Your task to perform on an android device: Search for Italian restaurants on Maps Image 0: 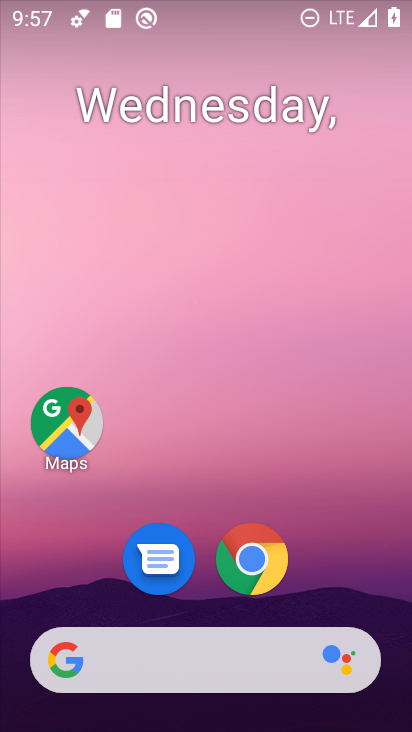
Step 0: click (63, 429)
Your task to perform on an android device: Search for Italian restaurants on Maps Image 1: 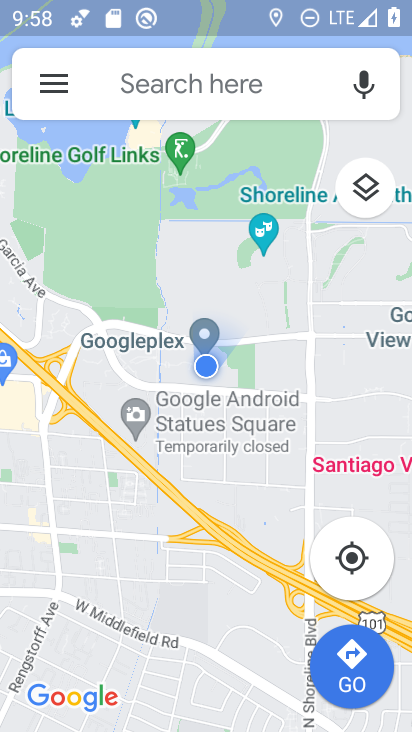
Step 1: click (161, 68)
Your task to perform on an android device: Search for Italian restaurants on Maps Image 2: 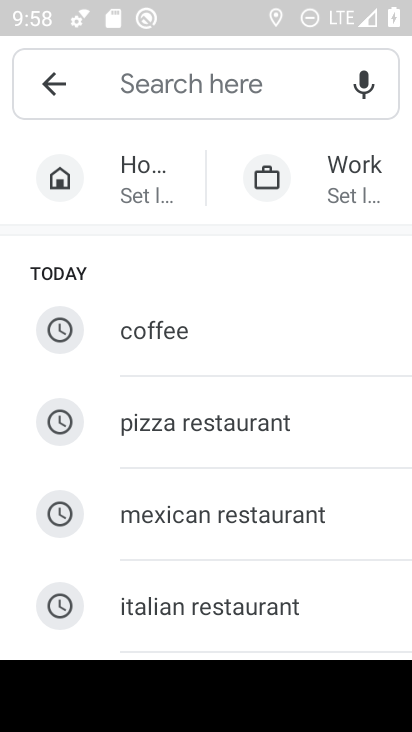
Step 2: click (203, 596)
Your task to perform on an android device: Search for Italian restaurants on Maps Image 3: 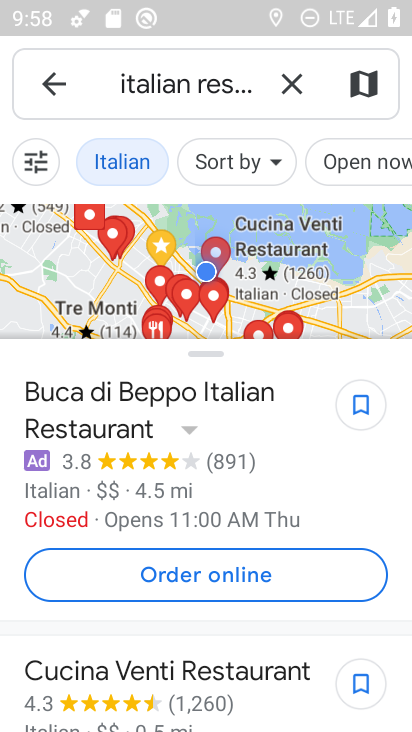
Step 3: task complete